Your task to perform on an android device: Open display settings Image 0: 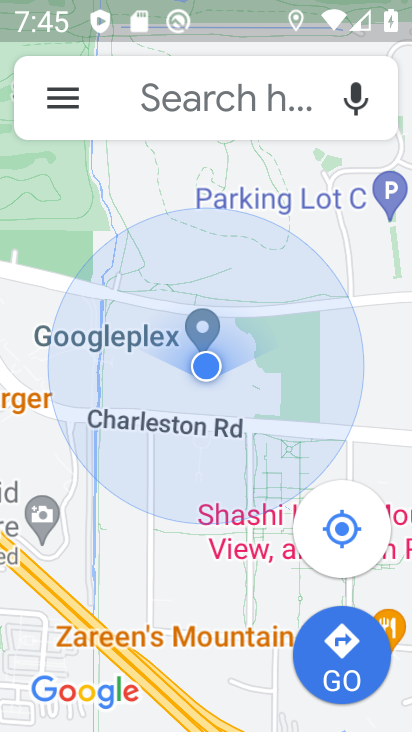
Step 0: press home button
Your task to perform on an android device: Open display settings Image 1: 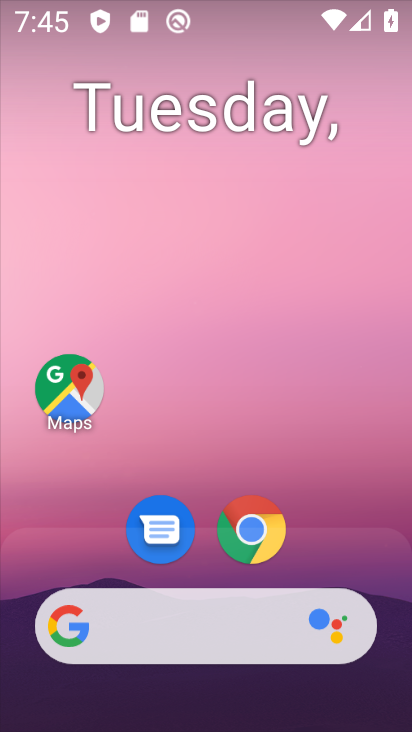
Step 1: drag from (293, 363) to (307, 0)
Your task to perform on an android device: Open display settings Image 2: 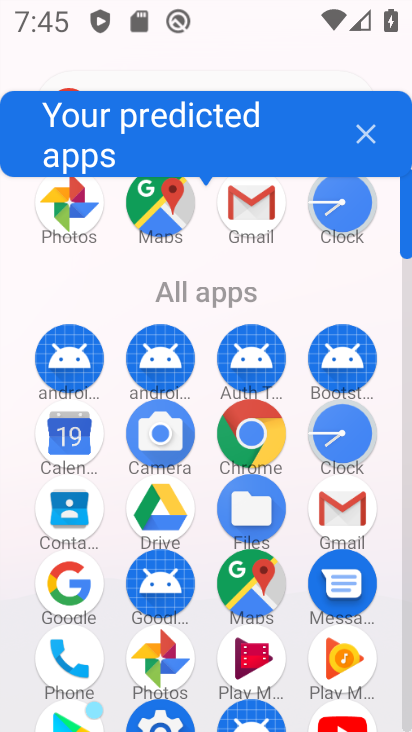
Step 2: drag from (207, 553) to (272, 79)
Your task to perform on an android device: Open display settings Image 3: 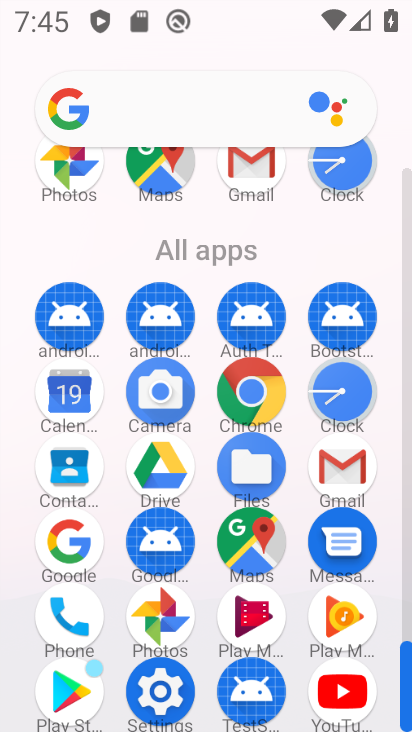
Step 3: click (169, 690)
Your task to perform on an android device: Open display settings Image 4: 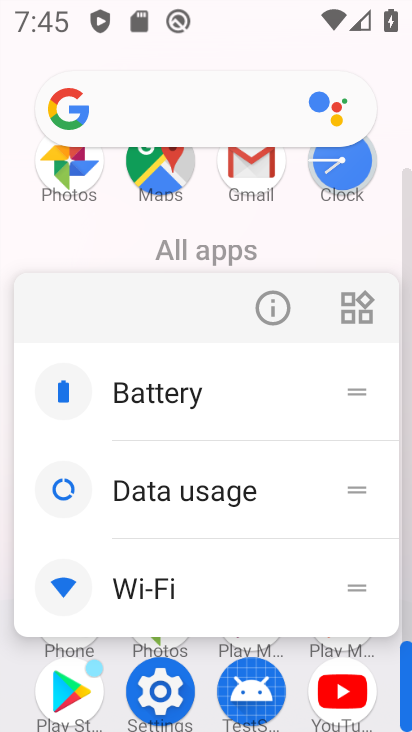
Step 4: click (176, 667)
Your task to perform on an android device: Open display settings Image 5: 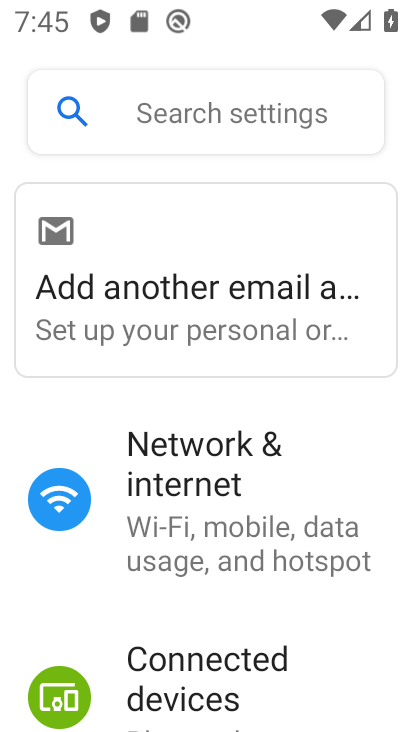
Step 5: drag from (238, 629) to (301, 226)
Your task to perform on an android device: Open display settings Image 6: 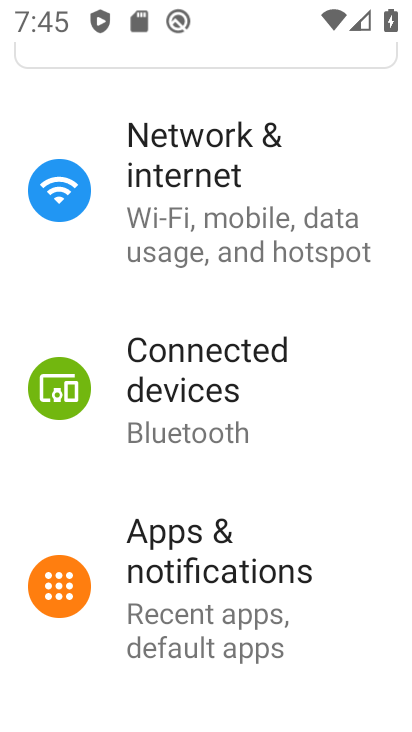
Step 6: drag from (228, 600) to (275, 241)
Your task to perform on an android device: Open display settings Image 7: 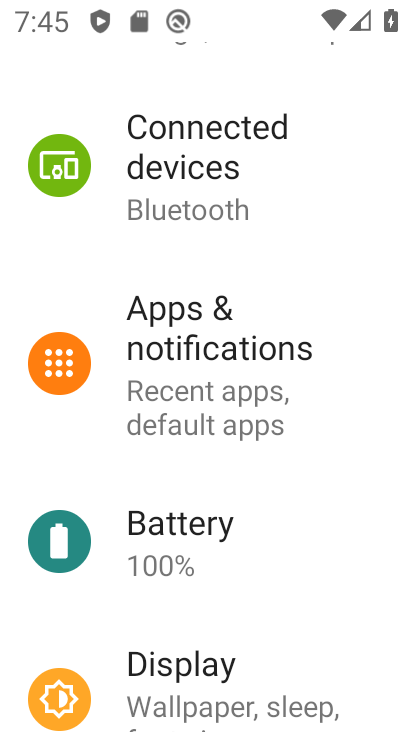
Step 7: drag from (175, 554) to (272, 130)
Your task to perform on an android device: Open display settings Image 8: 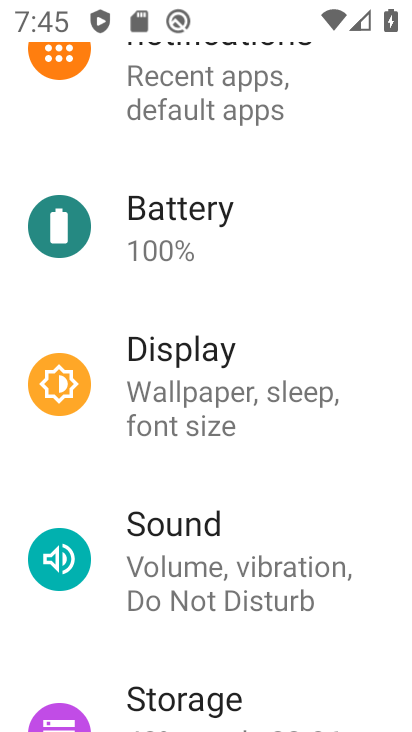
Step 8: click (199, 381)
Your task to perform on an android device: Open display settings Image 9: 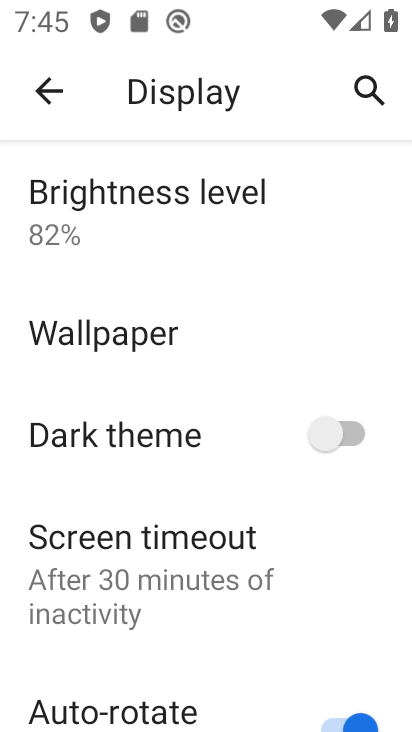
Step 9: task complete